Your task to perform on an android device: Open wifi settings Image 0: 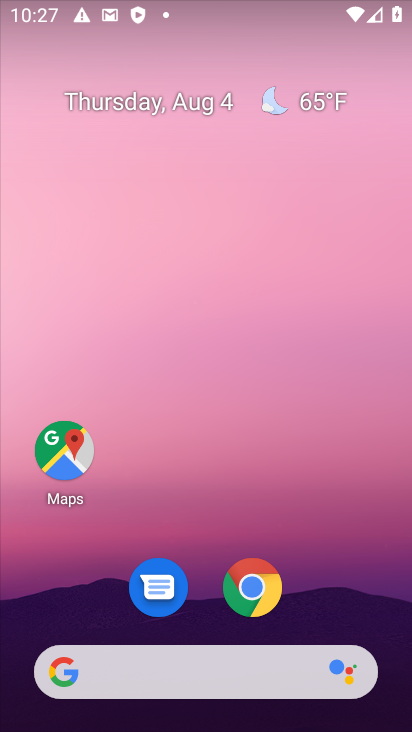
Step 0: drag from (150, 650) to (174, 251)
Your task to perform on an android device: Open wifi settings Image 1: 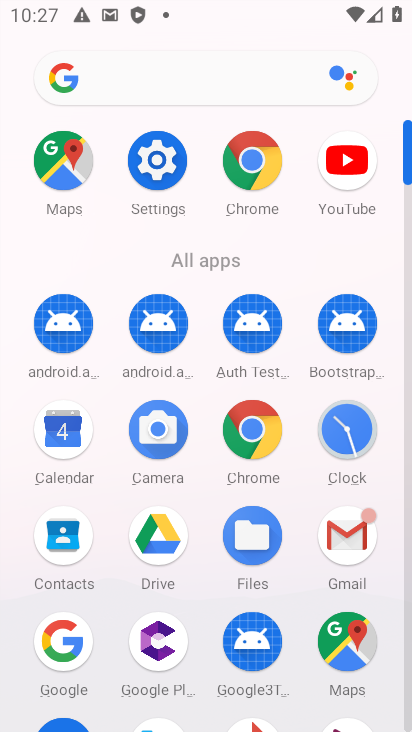
Step 1: click (122, 147)
Your task to perform on an android device: Open wifi settings Image 2: 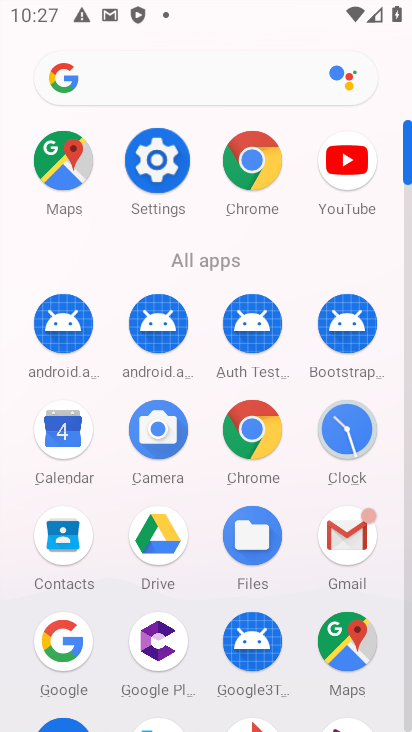
Step 2: click (155, 147)
Your task to perform on an android device: Open wifi settings Image 3: 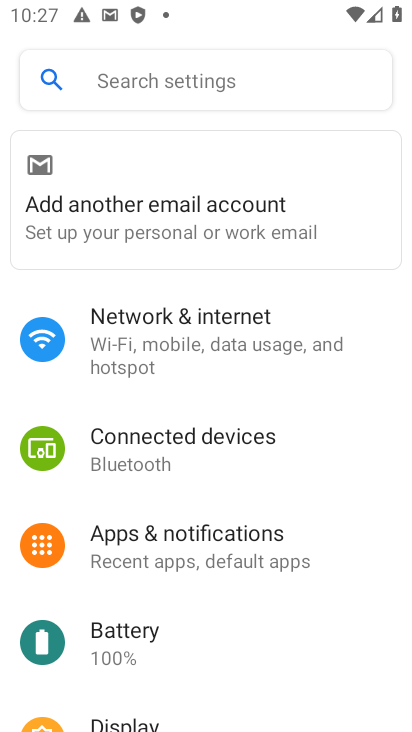
Step 3: click (191, 317)
Your task to perform on an android device: Open wifi settings Image 4: 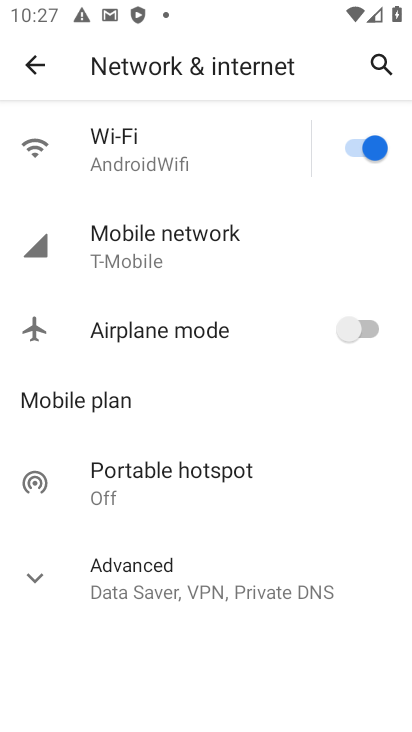
Step 4: click (133, 143)
Your task to perform on an android device: Open wifi settings Image 5: 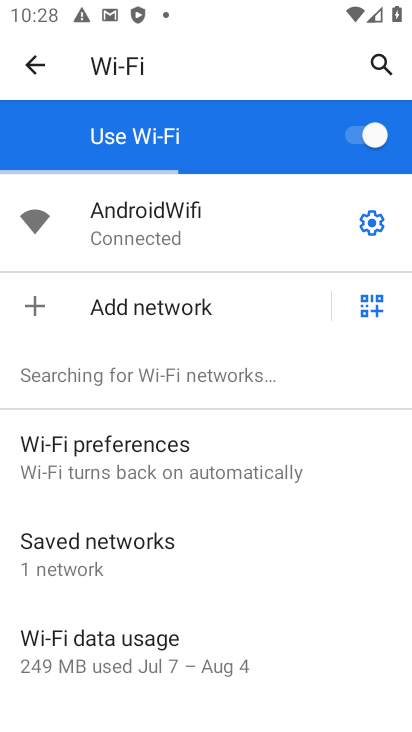
Step 5: task complete